Your task to perform on an android device: delete location history Image 0: 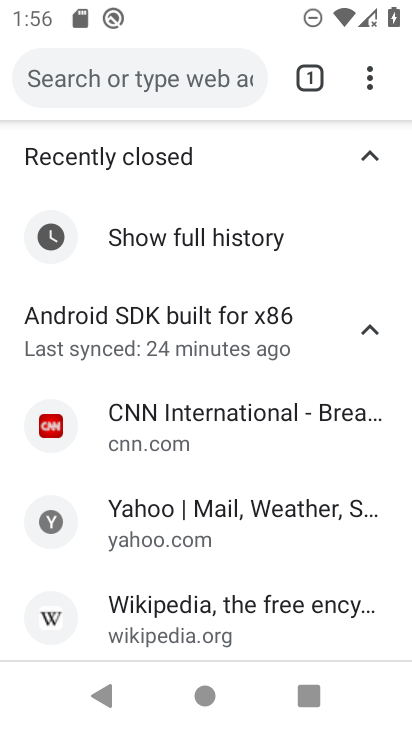
Step 0: press home button
Your task to perform on an android device: delete location history Image 1: 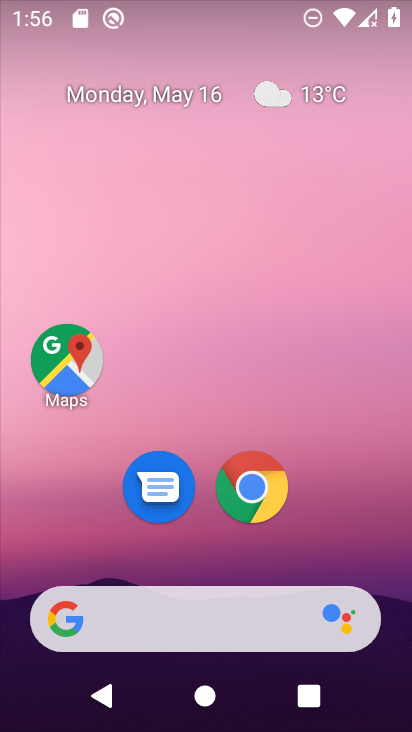
Step 1: drag from (396, 641) to (336, 306)
Your task to perform on an android device: delete location history Image 2: 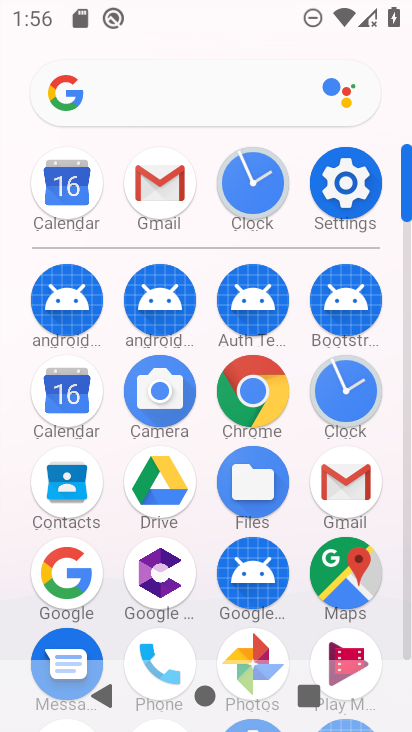
Step 2: click (367, 598)
Your task to perform on an android device: delete location history Image 3: 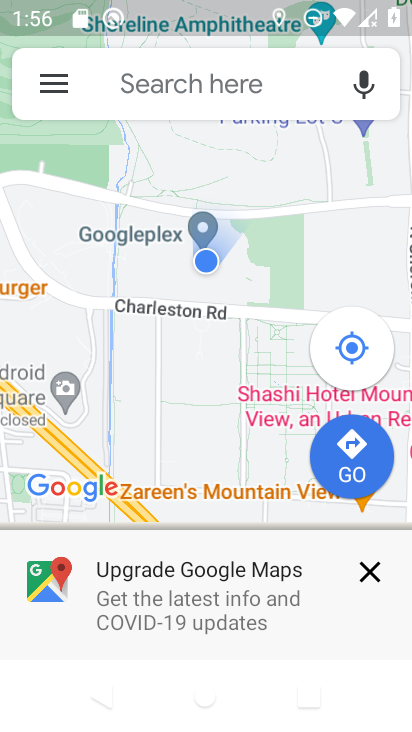
Step 3: click (50, 80)
Your task to perform on an android device: delete location history Image 4: 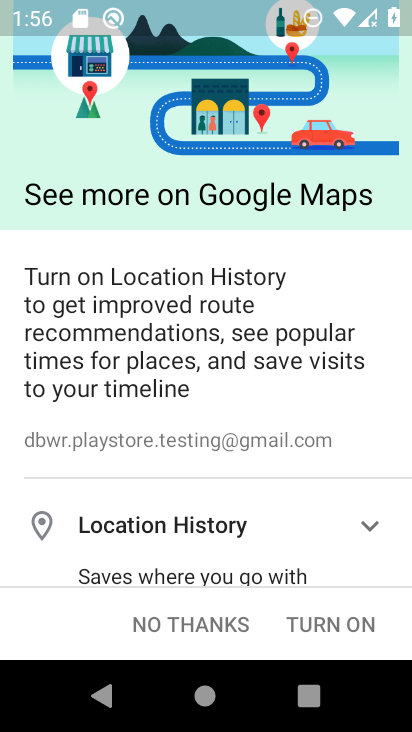
Step 4: drag from (253, 541) to (254, 347)
Your task to perform on an android device: delete location history Image 5: 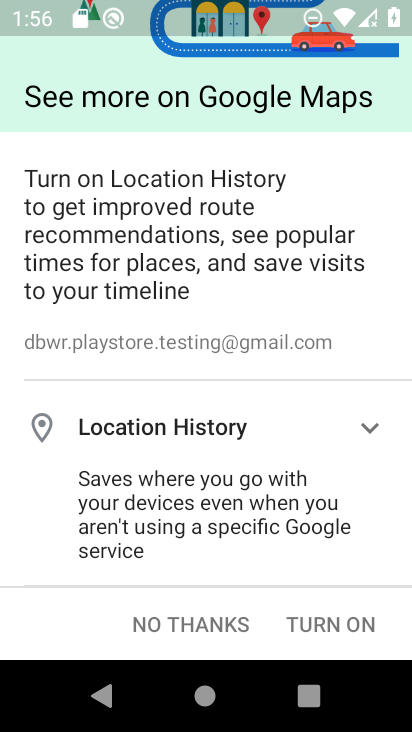
Step 5: drag from (215, 537) to (228, 381)
Your task to perform on an android device: delete location history Image 6: 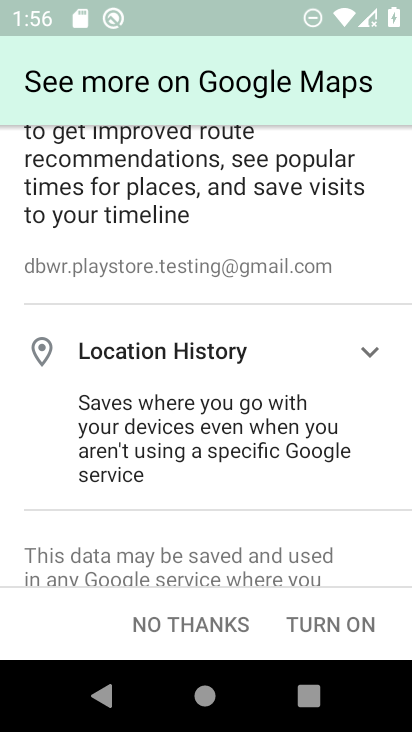
Step 6: drag from (225, 511) to (231, 359)
Your task to perform on an android device: delete location history Image 7: 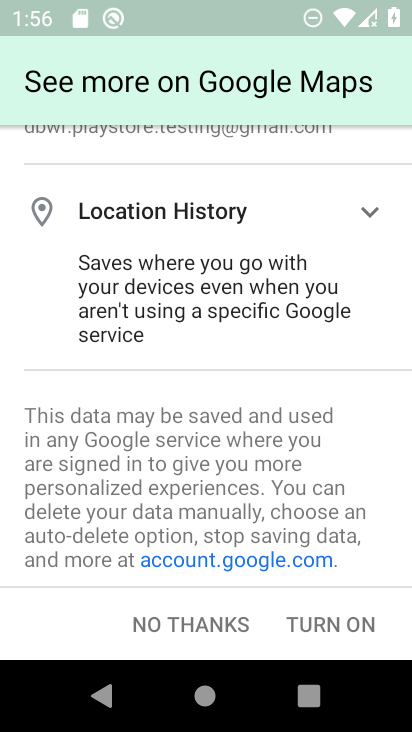
Step 7: drag from (242, 543) to (227, 405)
Your task to perform on an android device: delete location history Image 8: 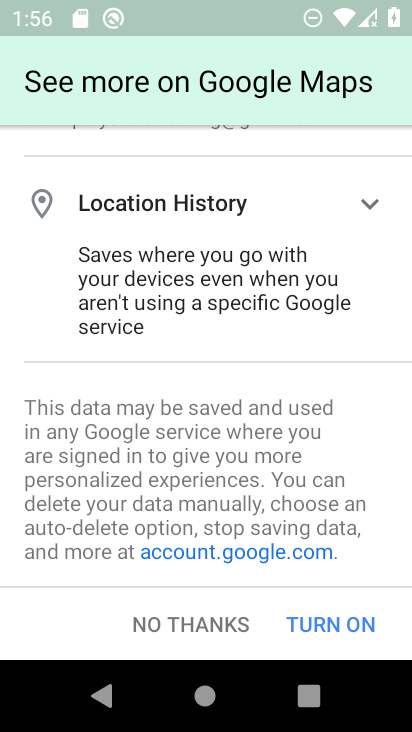
Step 8: drag from (152, 562) to (192, 380)
Your task to perform on an android device: delete location history Image 9: 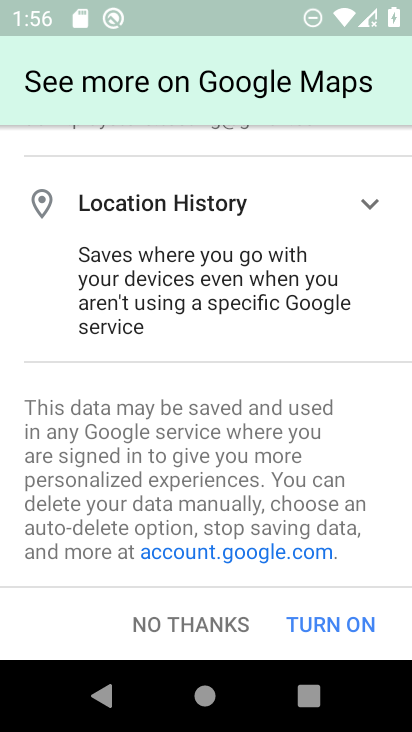
Step 9: click (310, 624)
Your task to perform on an android device: delete location history Image 10: 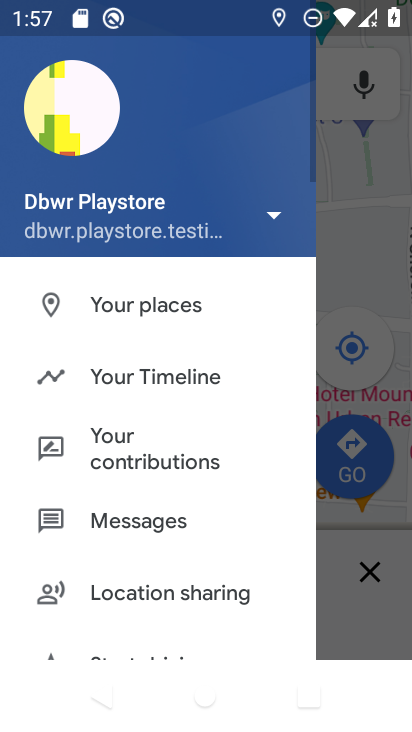
Step 10: click (171, 377)
Your task to perform on an android device: delete location history Image 11: 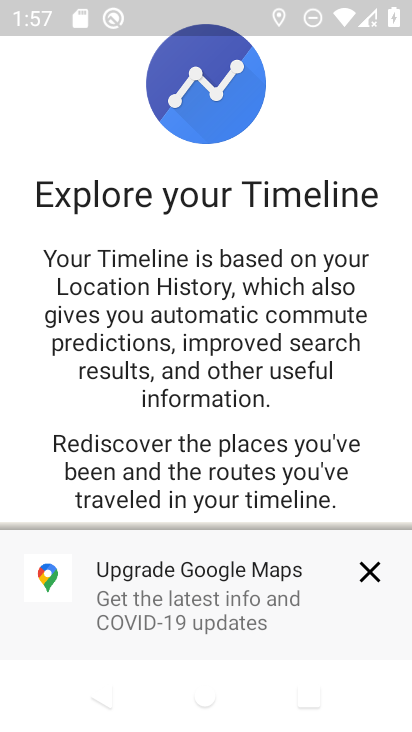
Step 11: drag from (273, 504) to (303, 255)
Your task to perform on an android device: delete location history Image 12: 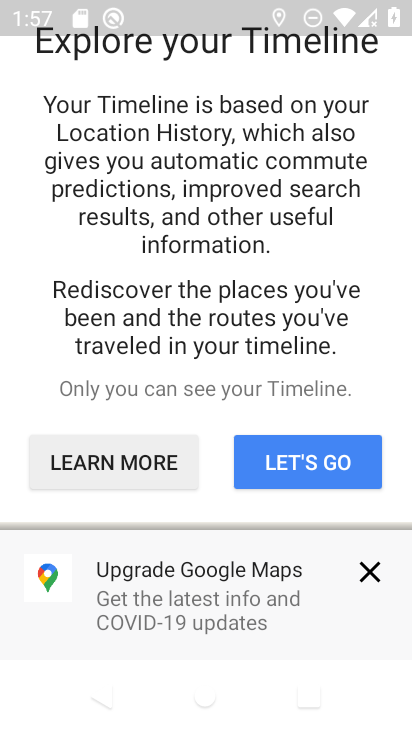
Step 12: click (300, 470)
Your task to perform on an android device: delete location history Image 13: 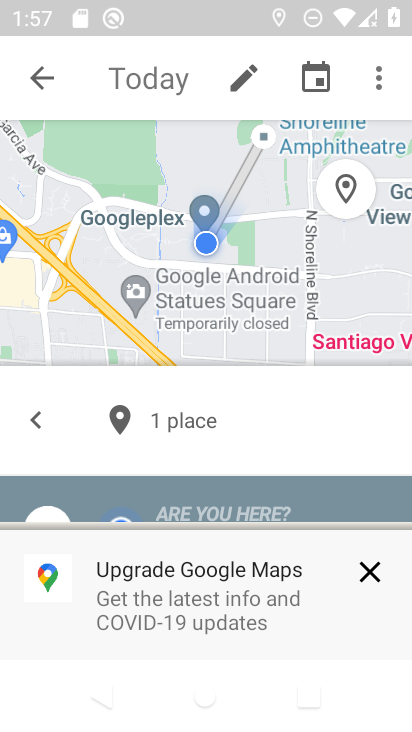
Step 13: task complete